Your task to perform on an android device: Open Google Chrome and click the shortcut for Amazon.com Image 0: 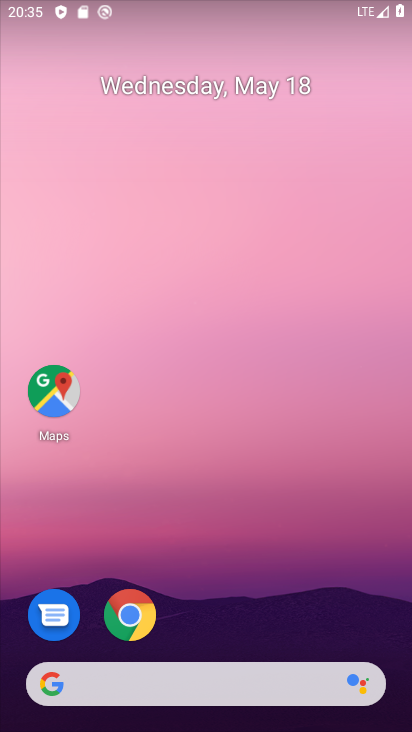
Step 0: click (133, 605)
Your task to perform on an android device: Open Google Chrome and click the shortcut for Amazon.com Image 1: 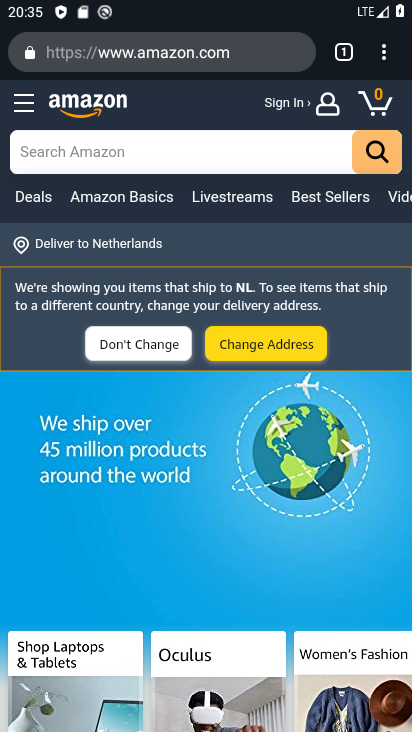
Step 1: click (356, 56)
Your task to perform on an android device: Open Google Chrome and click the shortcut for Amazon.com Image 2: 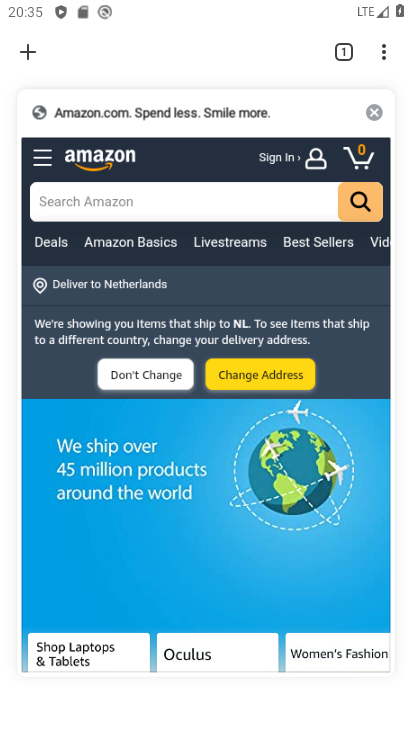
Step 2: click (19, 59)
Your task to perform on an android device: Open Google Chrome and click the shortcut for Amazon.com Image 3: 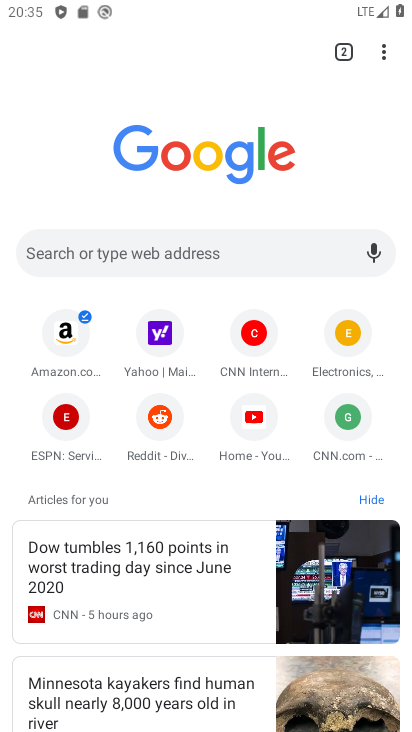
Step 3: click (63, 343)
Your task to perform on an android device: Open Google Chrome and click the shortcut for Amazon.com Image 4: 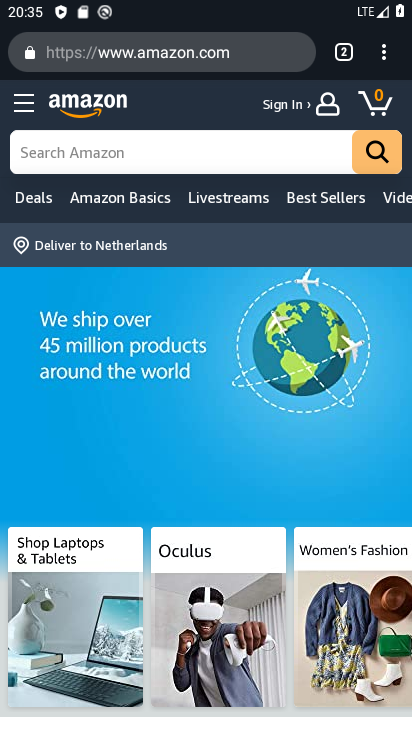
Step 4: task complete